Your task to perform on an android device: open the mobile data screen to see how much data has been used Image 0: 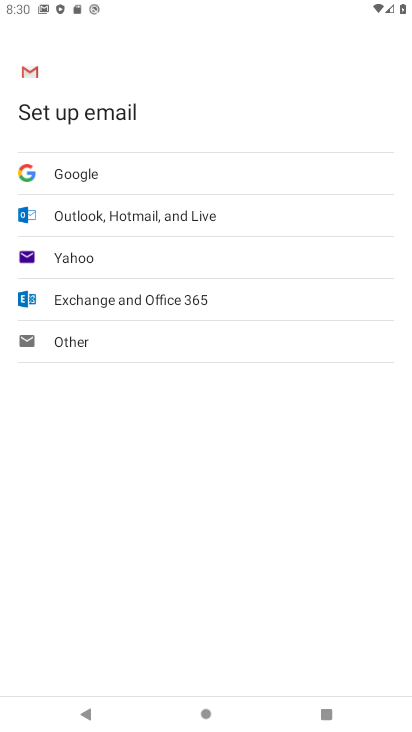
Step 0: press home button
Your task to perform on an android device: open the mobile data screen to see how much data has been used Image 1: 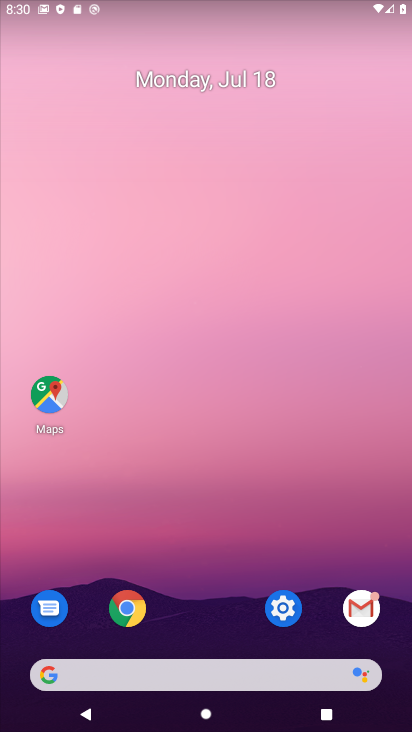
Step 1: drag from (254, 695) to (183, 254)
Your task to perform on an android device: open the mobile data screen to see how much data has been used Image 2: 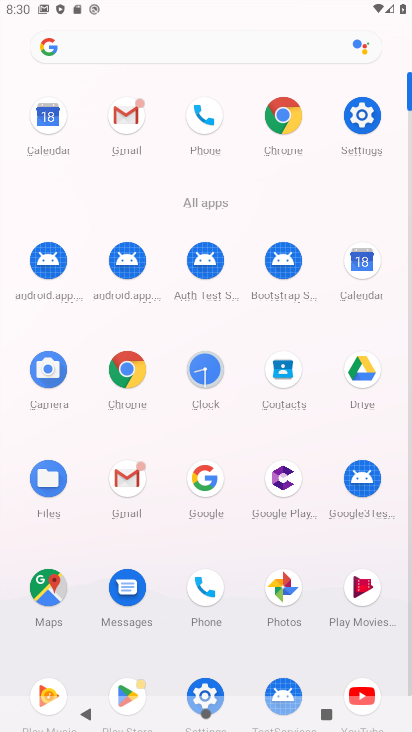
Step 2: click (368, 128)
Your task to perform on an android device: open the mobile data screen to see how much data has been used Image 3: 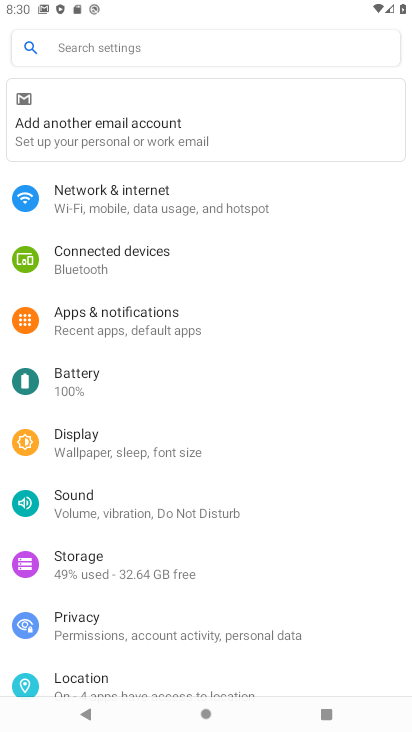
Step 3: click (132, 42)
Your task to perform on an android device: open the mobile data screen to see how much data has been used Image 4: 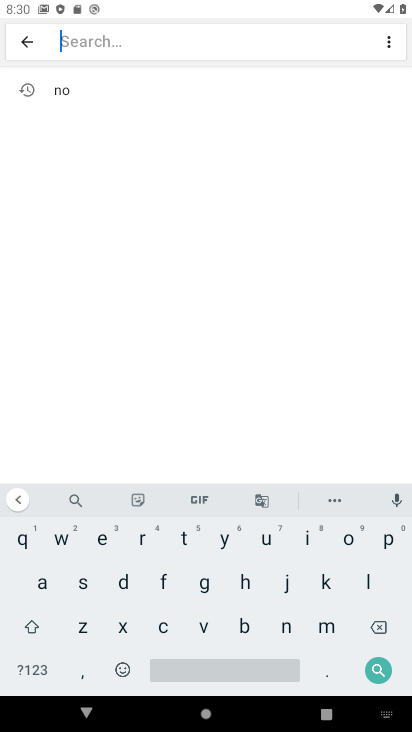
Step 4: click (115, 586)
Your task to perform on an android device: open the mobile data screen to see how much data has been used Image 5: 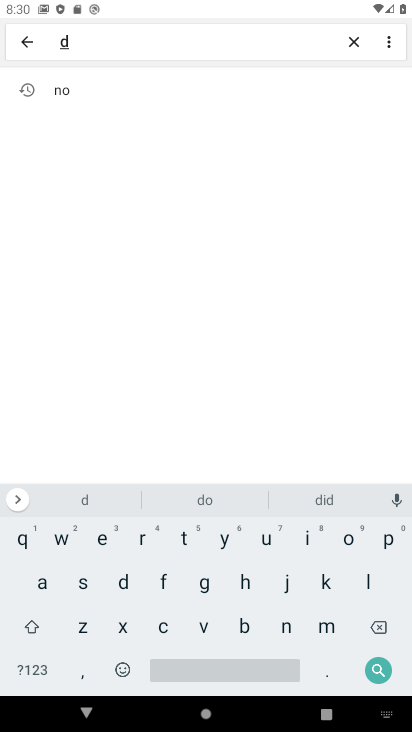
Step 5: click (37, 582)
Your task to perform on an android device: open the mobile data screen to see how much data has been used Image 6: 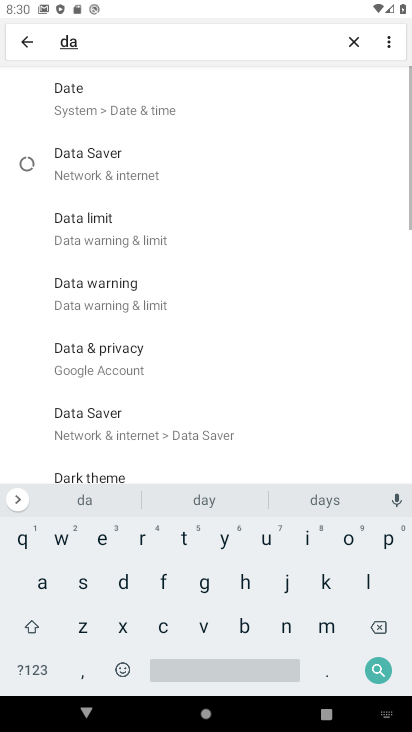
Step 6: click (186, 547)
Your task to perform on an android device: open the mobile data screen to see how much data has been used Image 7: 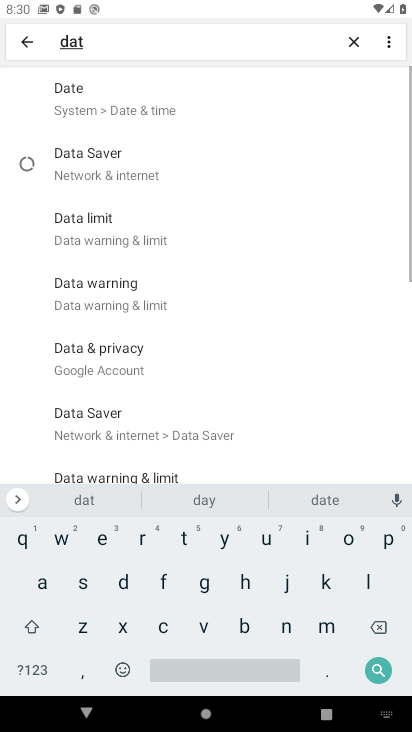
Step 7: click (31, 577)
Your task to perform on an android device: open the mobile data screen to see how much data has been used Image 8: 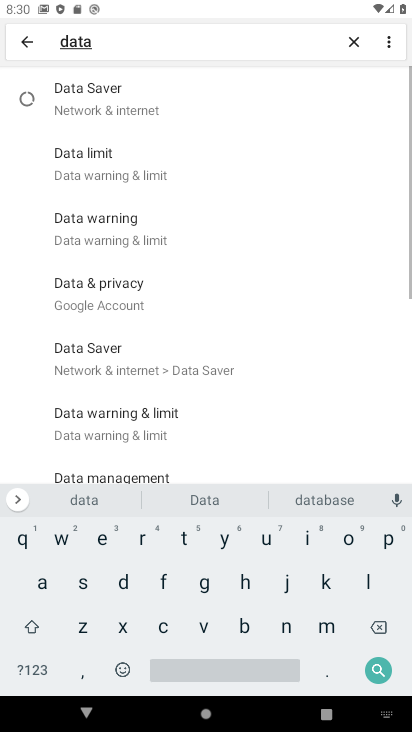
Step 8: click (225, 676)
Your task to perform on an android device: open the mobile data screen to see how much data has been used Image 9: 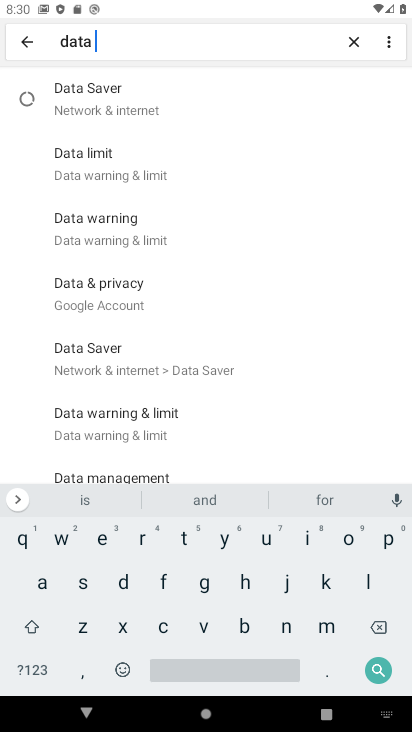
Step 9: click (263, 541)
Your task to perform on an android device: open the mobile data screen to see how much data has been used Image 10: 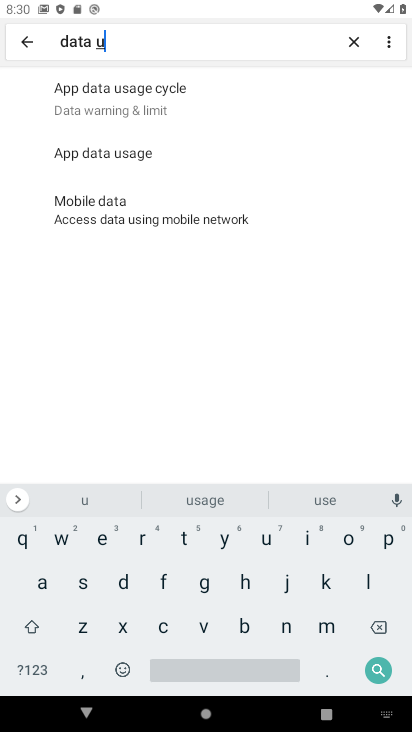
Step 10: click (146, 149)
Your task to perform on an android device: open the mobile data screen to see how much data has been used Image 11: 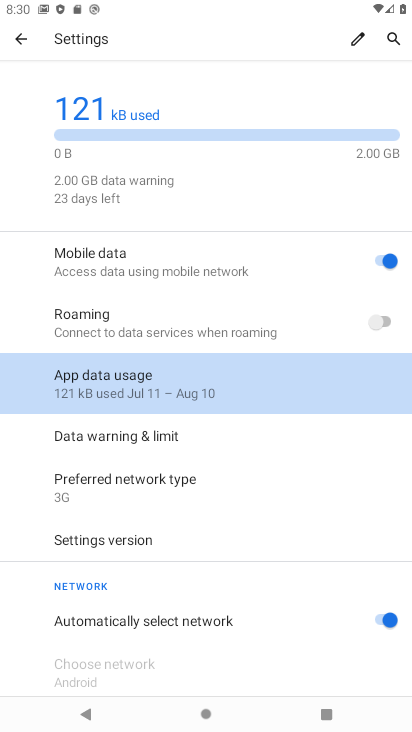
Step 11: click (169, 382)
Your task to perform on an android device: open the mobile data screen to see how much data has been used Image 12: 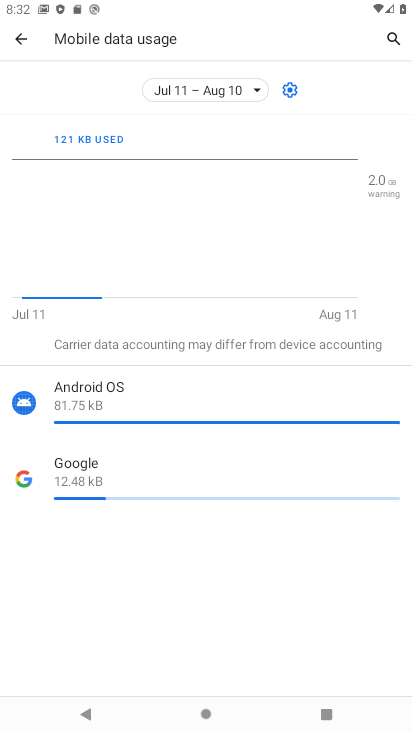
Step 12: task complete